Your task to perform on an android device: Open Google Chrome and open the bookmarks view Image 0: 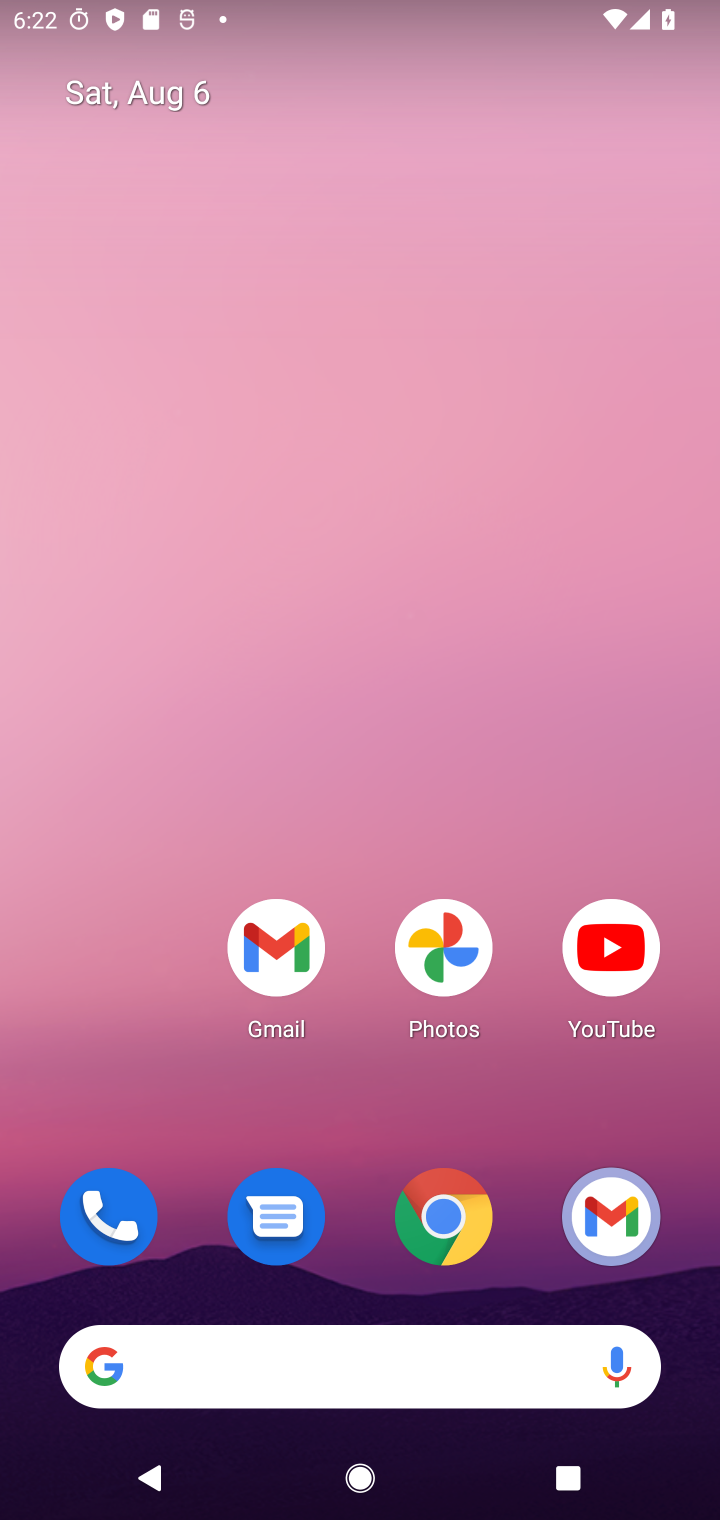
Step 0: drag from (155, 1120) to (210, 116)
Your task to perform on an android device: Open Google Chrome and open the bookmarks view Image 1: 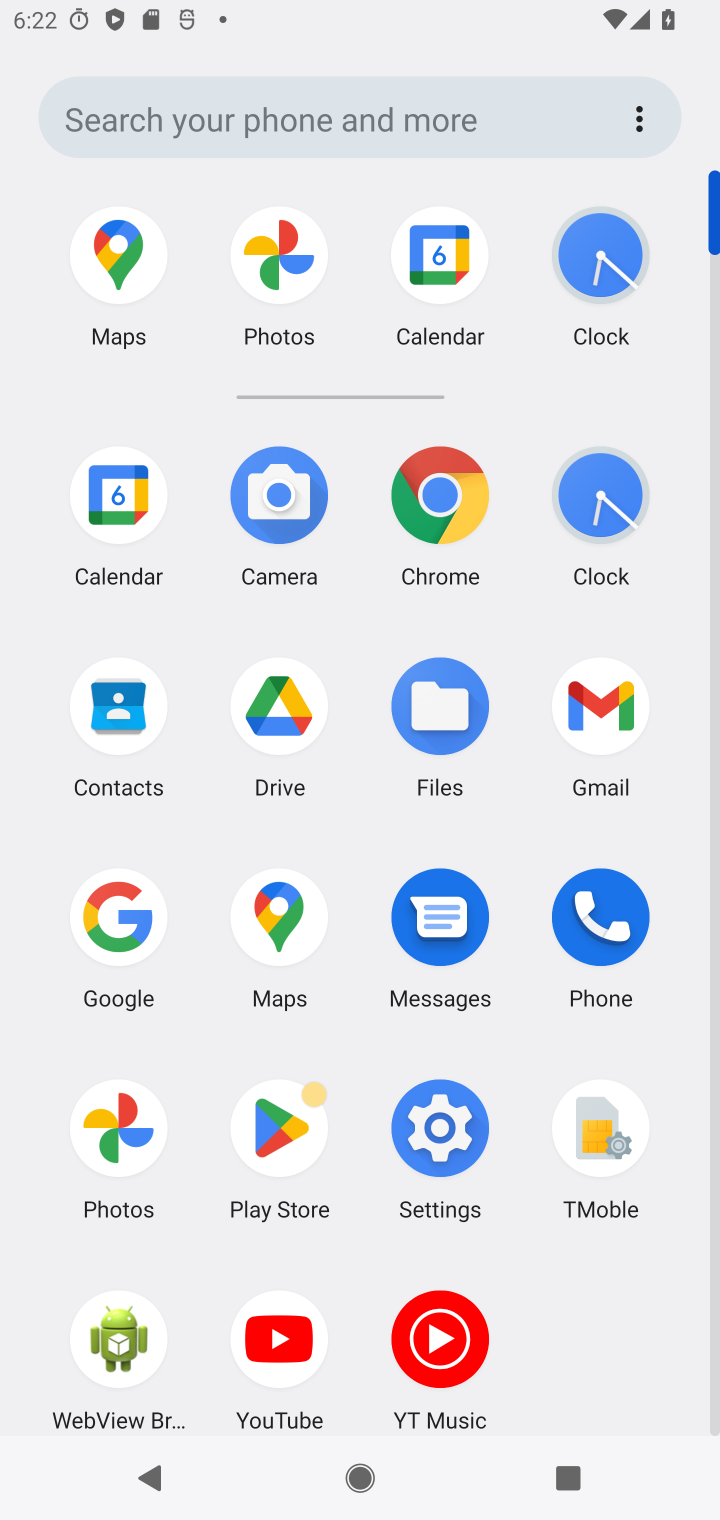
Step 1: click (437, 492)
Your task to perform on an android device: Open Google Chrome and open the bookmarks view Image 2: 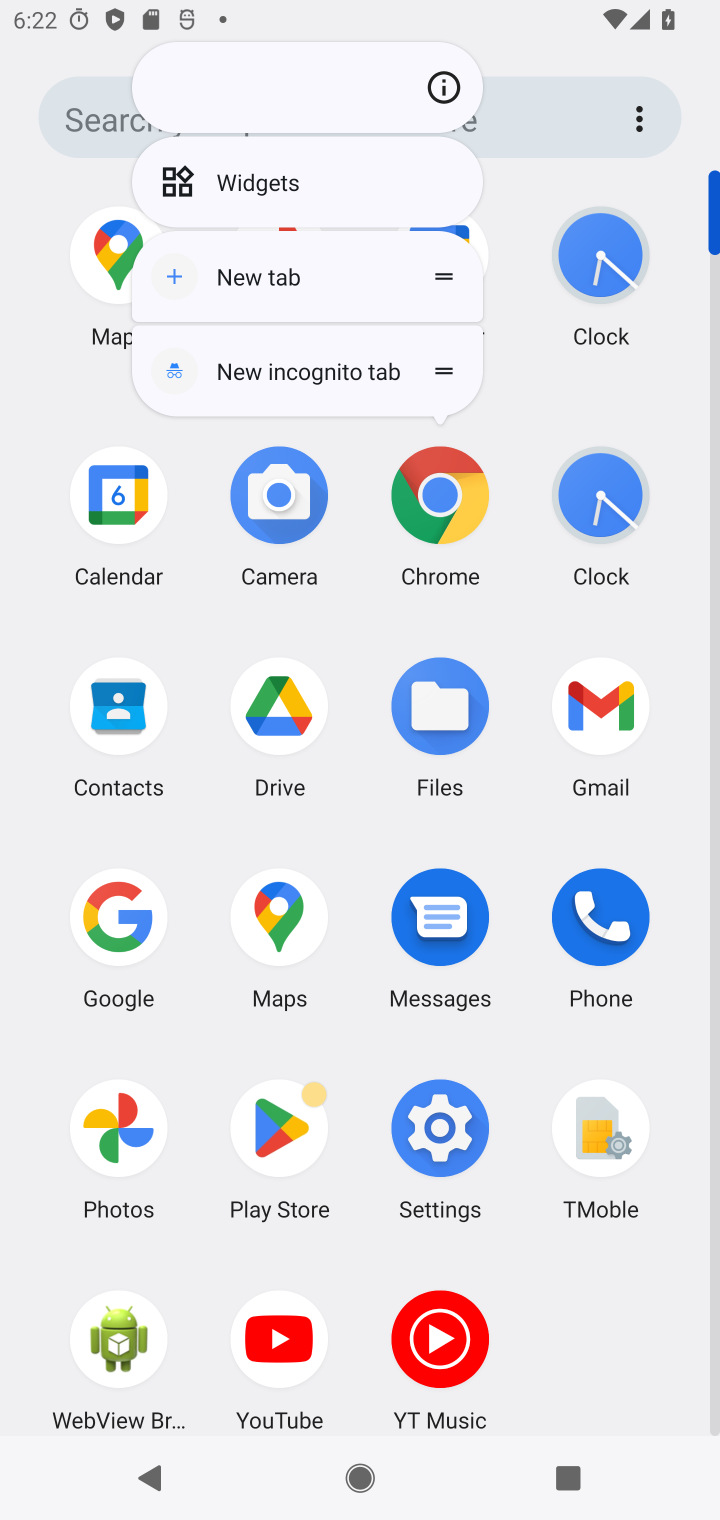
Step 2: click (437, 492)
Your task to perform on an android device: Open Google Chrome and open the bookmarks view Image 3: 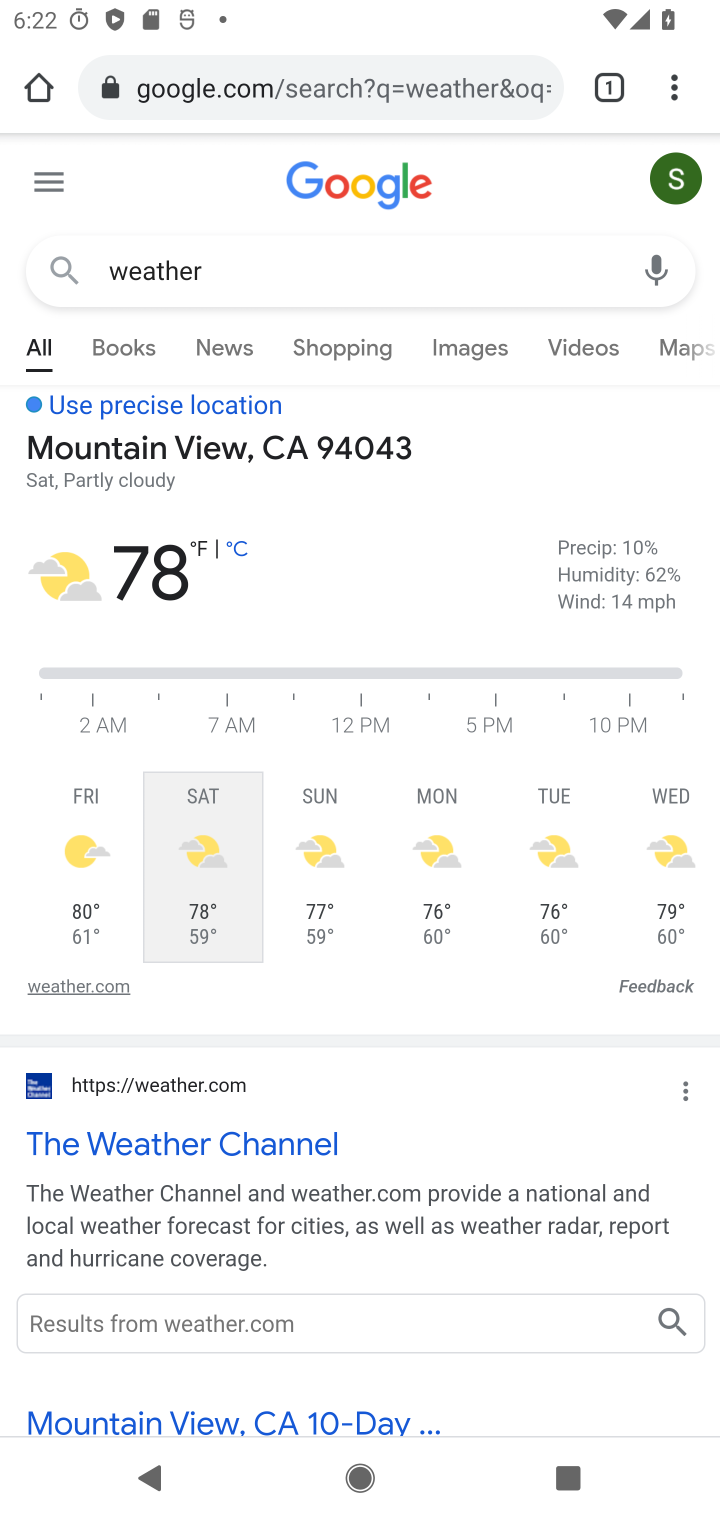
Step 3: task complete